Your task to perform on an android device: star an email in the gmail app Image 0: 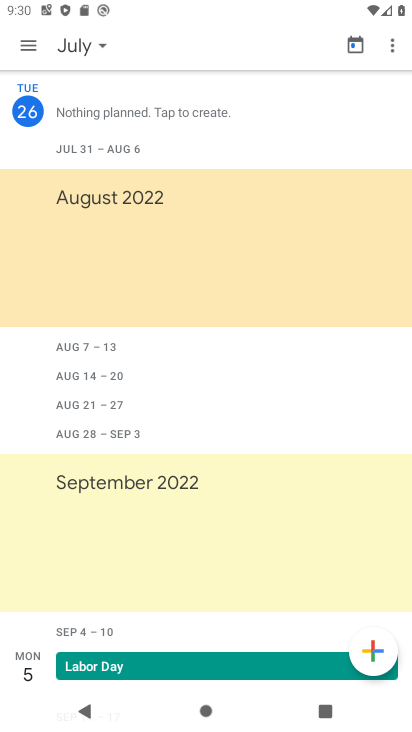
Step 0: press home button
Your task to perform on an android device: star an email in the gmail app Image 1: 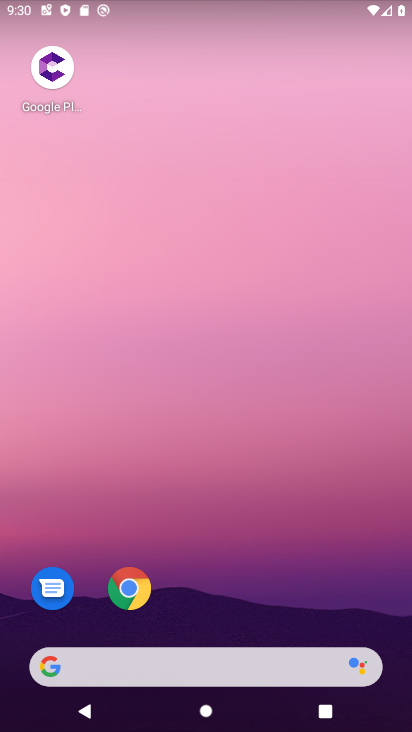
Step 1: drag from (161, 670) to (268, 90)
Your task to perform on an android device: star an email in the gmail app Image 2: 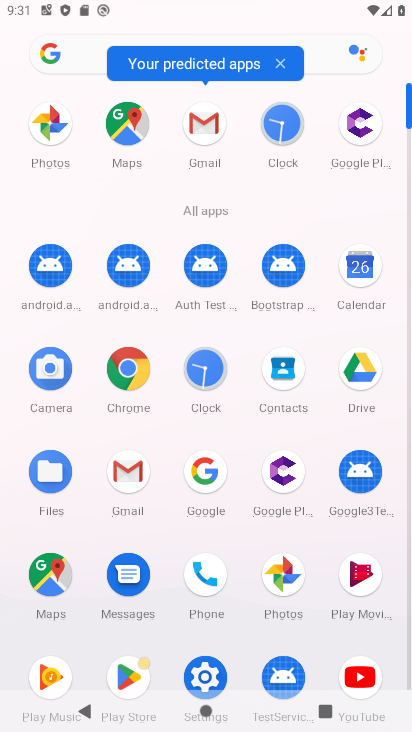
Step 2: click (203, 123)
Your task to perform on an android device: star an email in the gmail app Image 3: 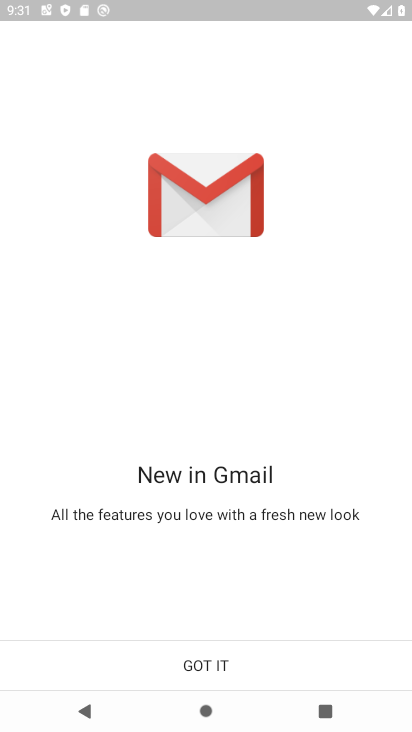
Step 3: click (201, 660)
Your task to perform on an android device: star an email in the gmail app Image 4: 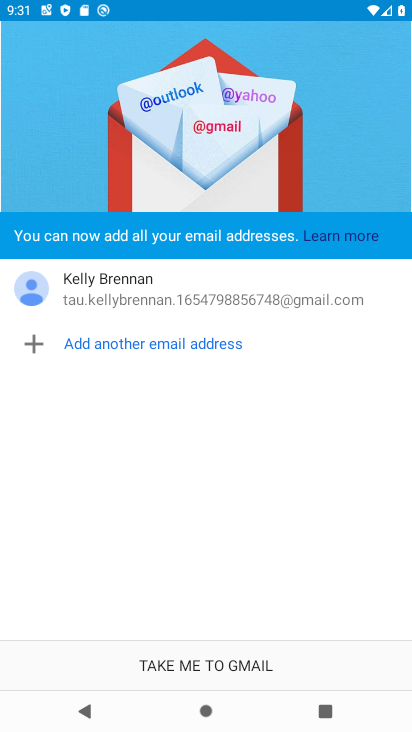
Step 4: click (203, 663)
Your task to perform on an android device: star an email in the gmail app Image 5: 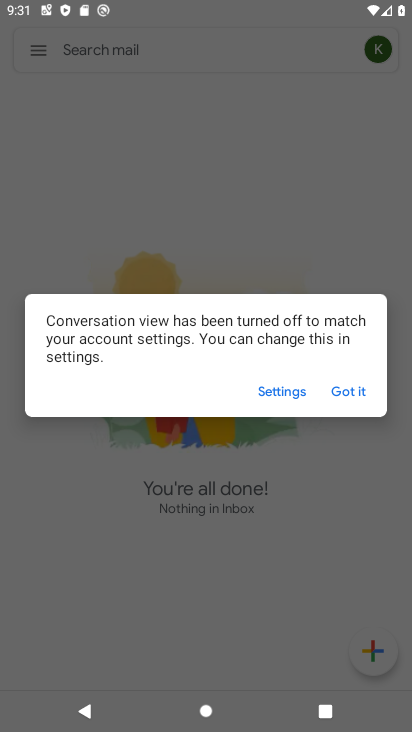
Step 5: click (353, 392)
Your task to perform on an android device: star an email in the gmail app Image 6: 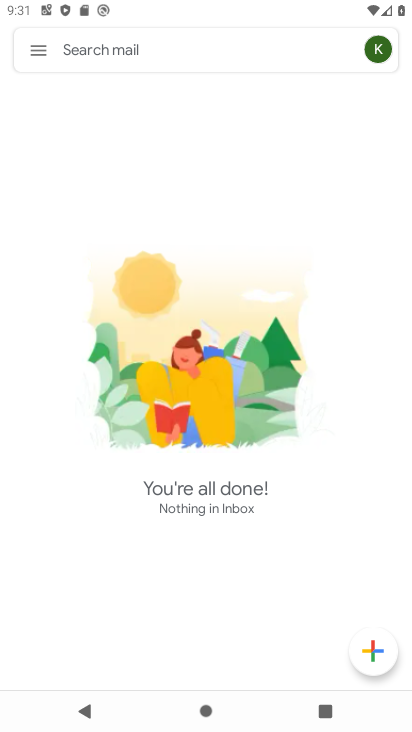
Step 6: click (38, 51)
Your task to perform on an android device: star an email in the gmail app Image 7: 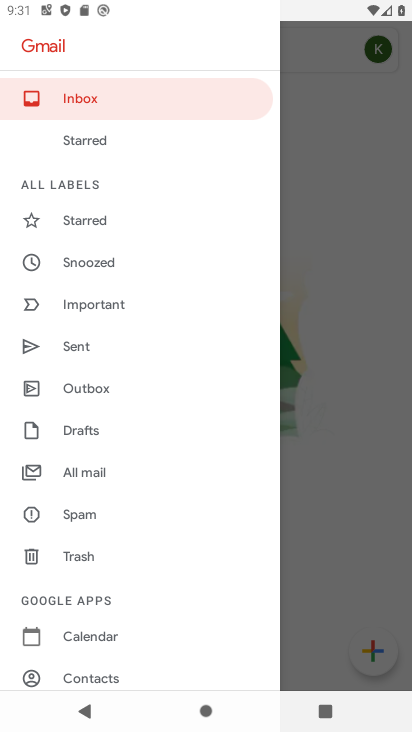
Step 7: click (89, 138)
Your task to perform on an android device: star an email in the gmail app Image 8: 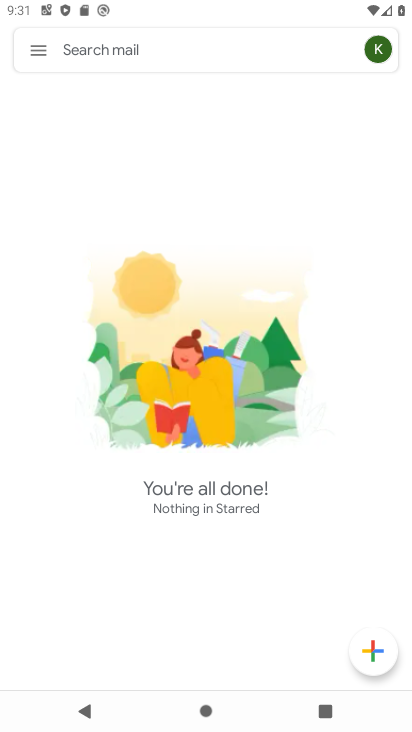
Step 8: click (36, 45)
Your task to perform on an android device: star an email in the gmail app Image 9: 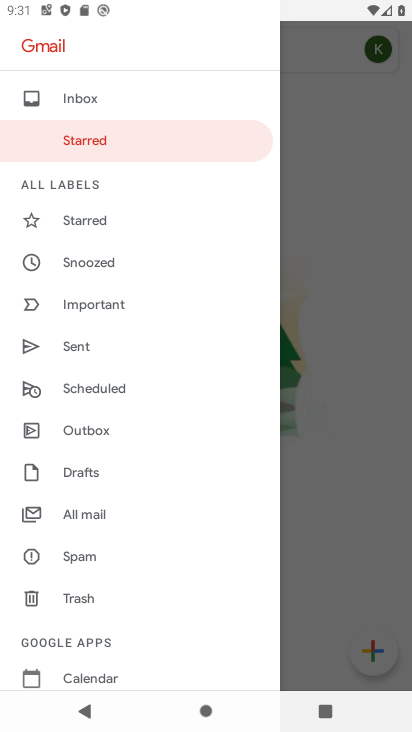
Step 9: click (97, 227)
Your task to perform on an android device: star an email in the gmail app Image 10: 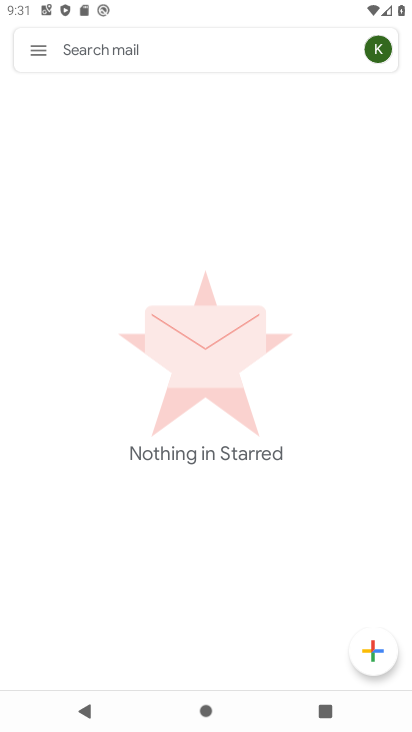
Step 10: click (28, 44)
Your task to perform on an android device: star an email in the gmail app Image 11: 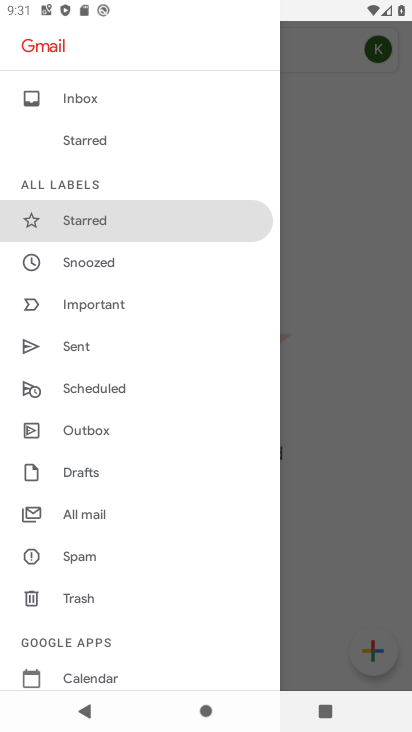
Step 11: click (99, 263)
Your task to perform on an android device: star an email in the gmail app Image 12: 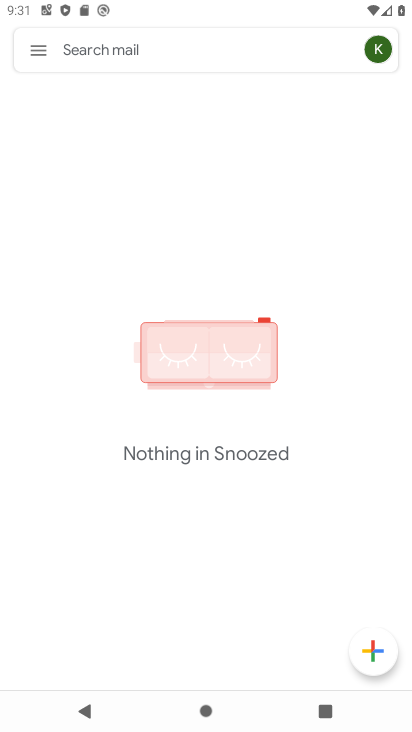
Step 12: click (37, 52)
Your task to perform on an android device: star an email in the gmail app Image 13: 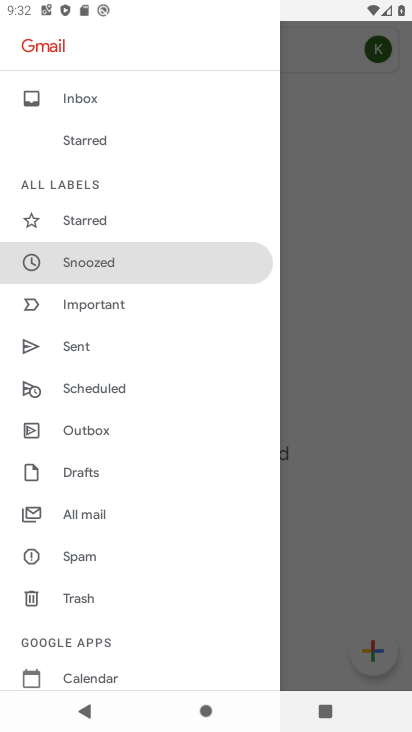
Step 13: click (62, 300)
Your task to perform on an android device: star an email in the gmail app Image 14: 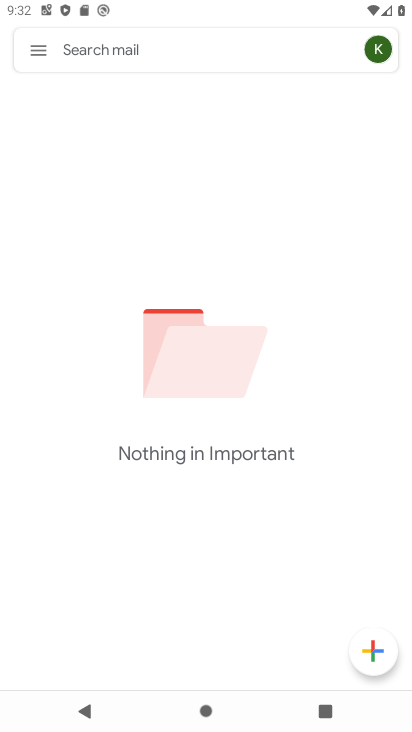
Step 14: click (37, 54)
Your task to perform on an android device: star an email in the gmail app Image 15: 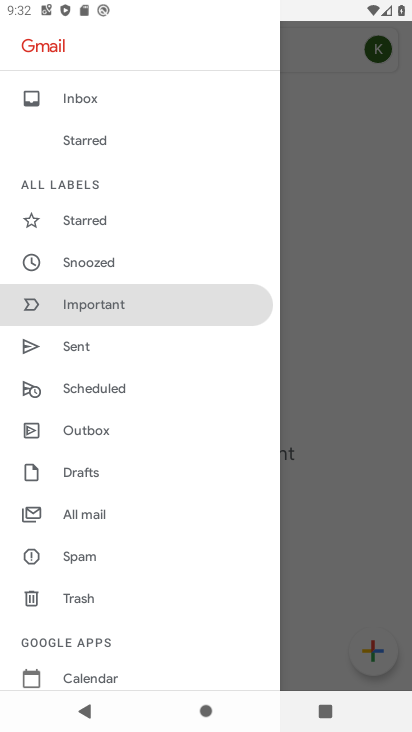
Step 15: click (87, 363)
Your task to perform on an android device: star an email in the gmail app Image 16: 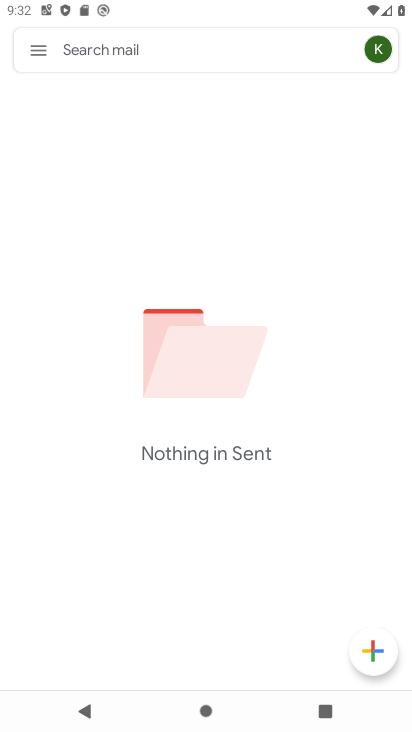
Step 16: click (37, 58)
Your task to perform on an android device: star an email in the gmail app Image 17: 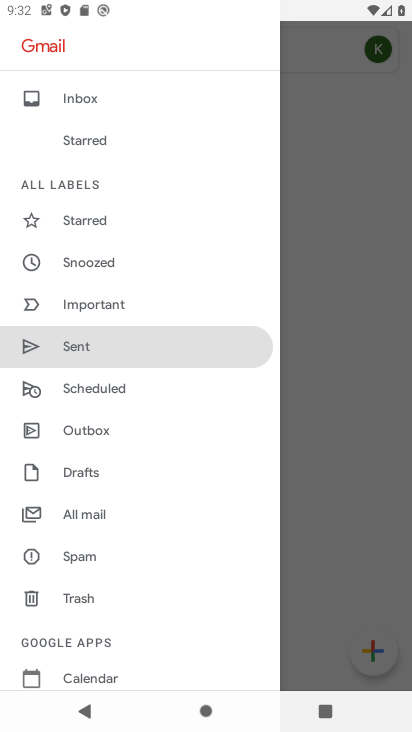
Step 17: click (82, 469)
Your task to perform on an android device: star an email in the gmail app Image 18: 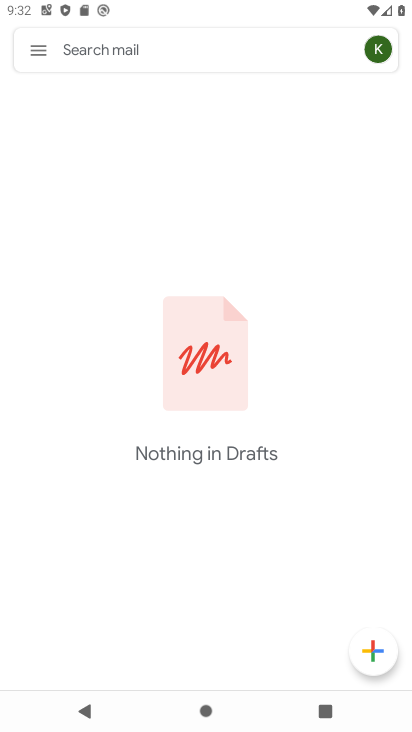
Step 18: click (47, 54)
Your task to perform on an android device: star an email in the gmail app Image 19: 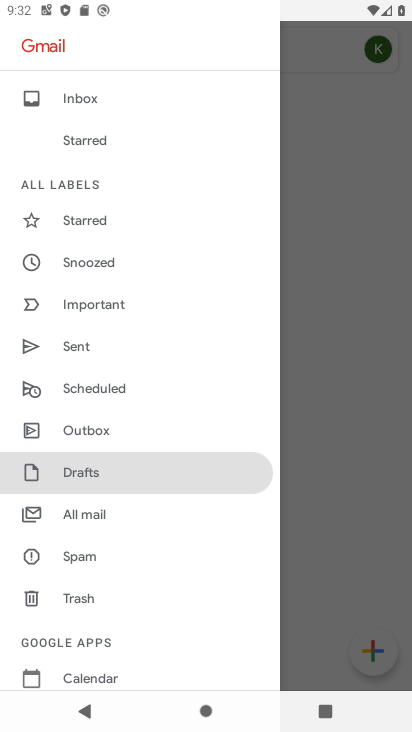
Step 19: click (80, 504)
Your task to perform on an android device: star an email in the gmail app Image 20: 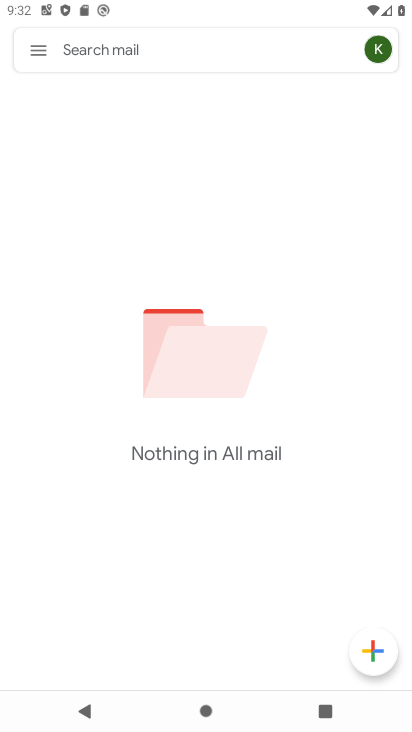
Step 20: click (44, 43)
Your task to perform on an android device: star an email in the gmail app Image 21: 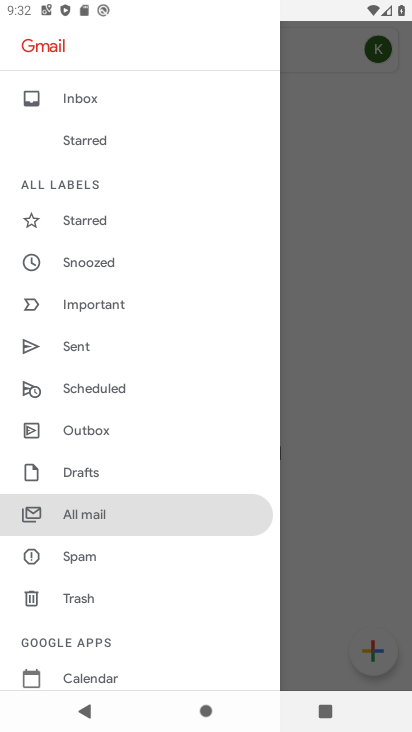
Step 21: click (83, 561)
Your task to perform on an android device: star an email in the gmail app Image 22: 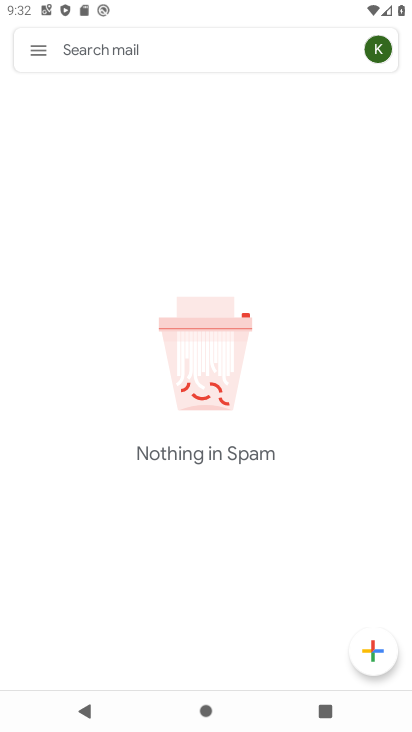
Step 22: click (43, 59)
Your task to perform on an android device: star an email in the gmail app Image 23: 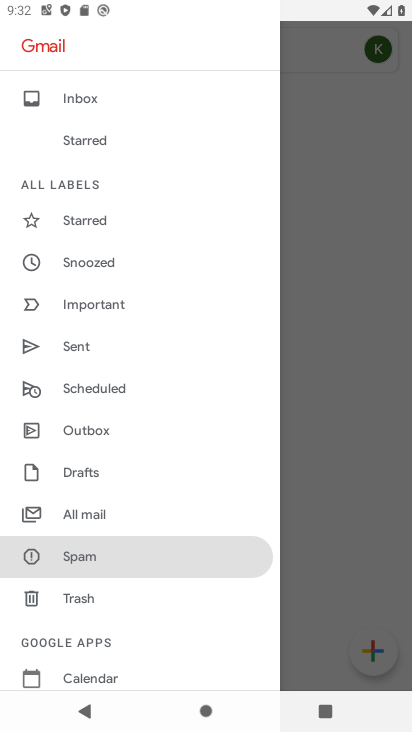
Step 23: click (87, 602)
Your task to perform on an android device: star an email in the gmail app Image 24: 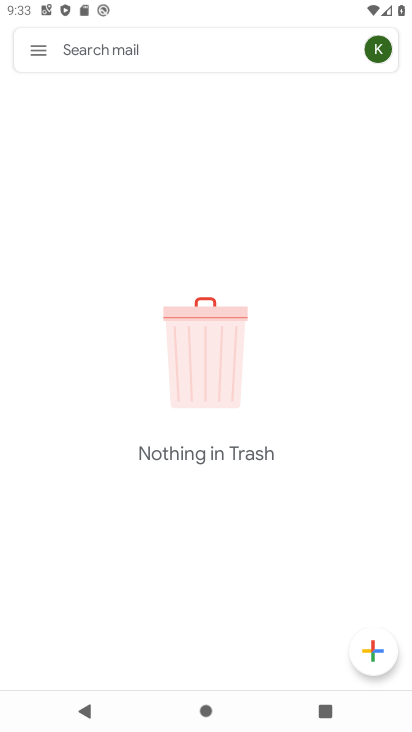
Step 24: task complete